Your task to perform on an android device: change notifications settings Image 0: 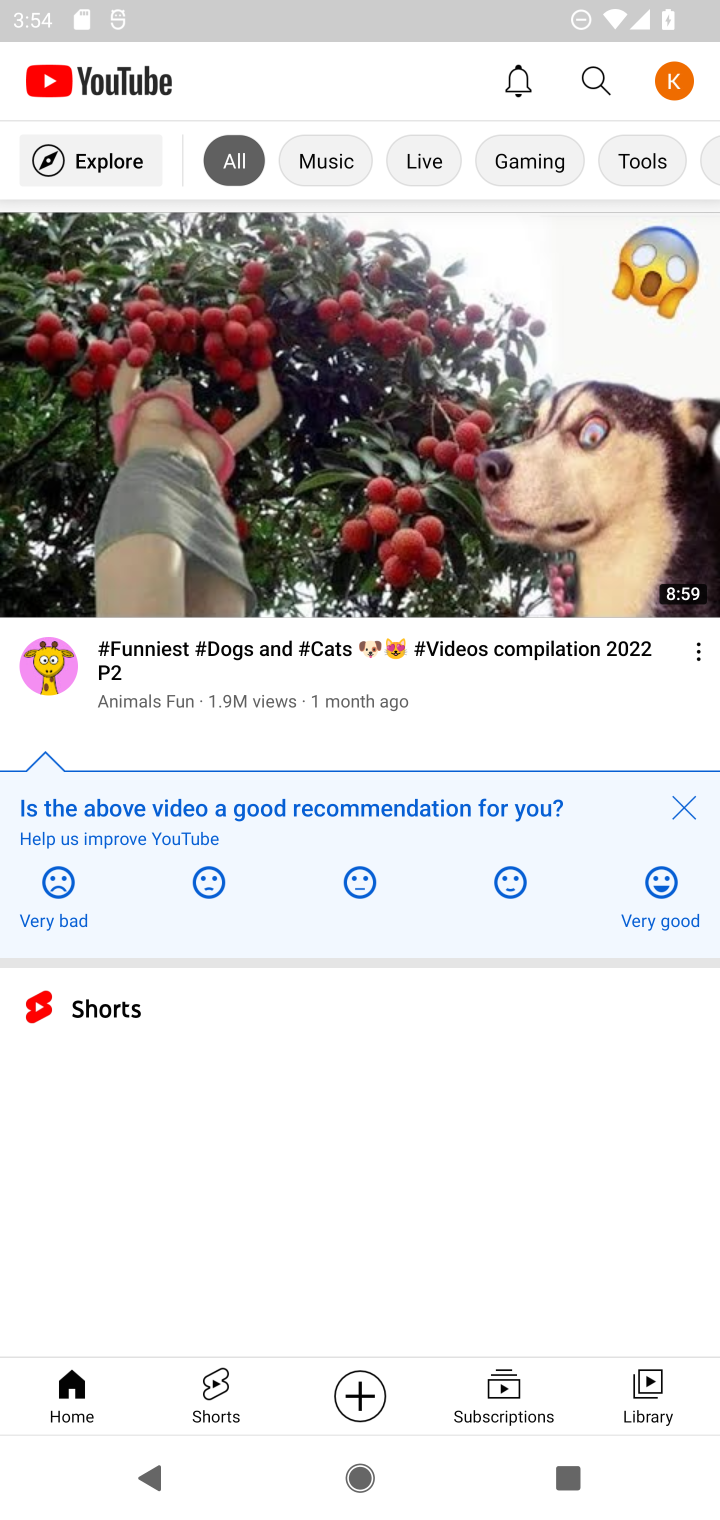
Step 0: press back button
Your task to perform on an android device: change notifications settings Image 1: 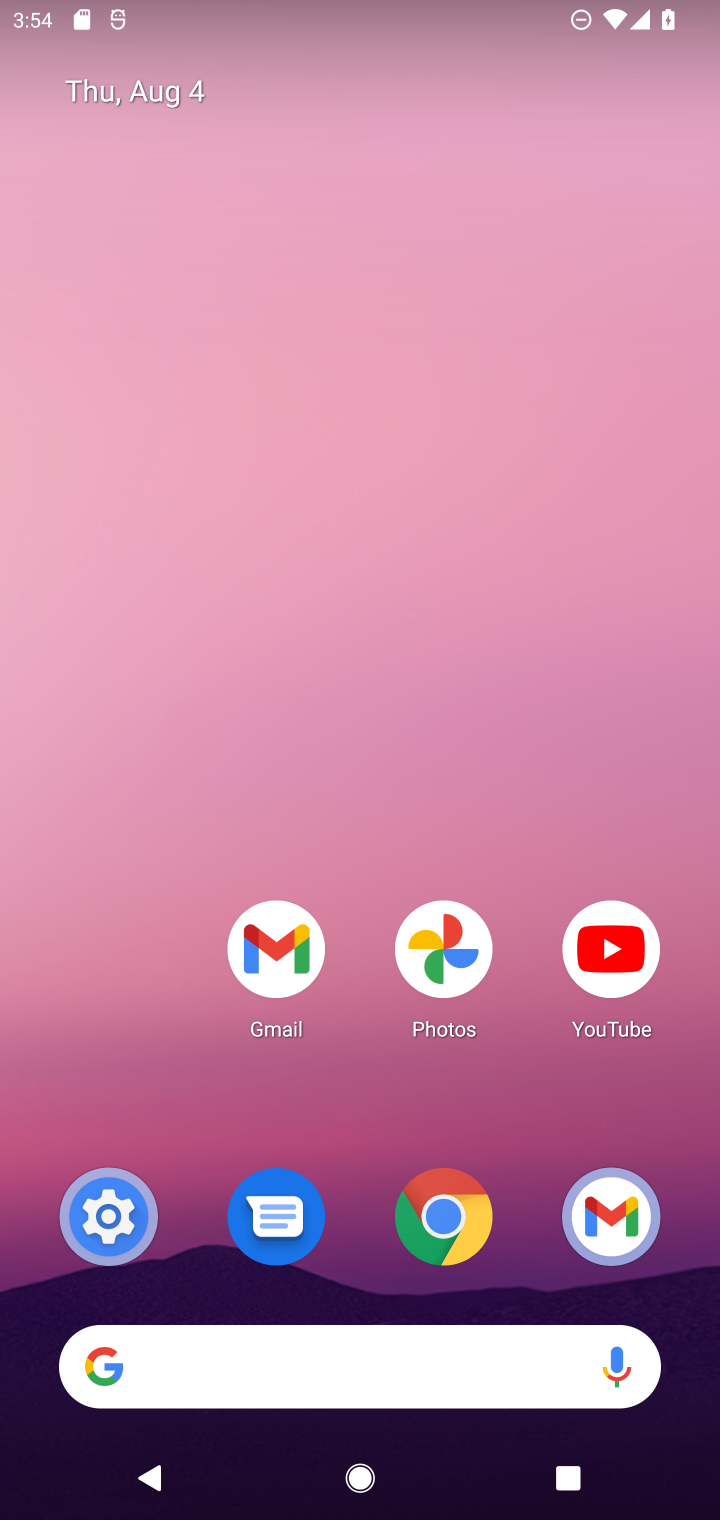
Step 1: drag from (119, 967) to (338, 6)
Your task to perform on an android device: change notifications settings Image 2: 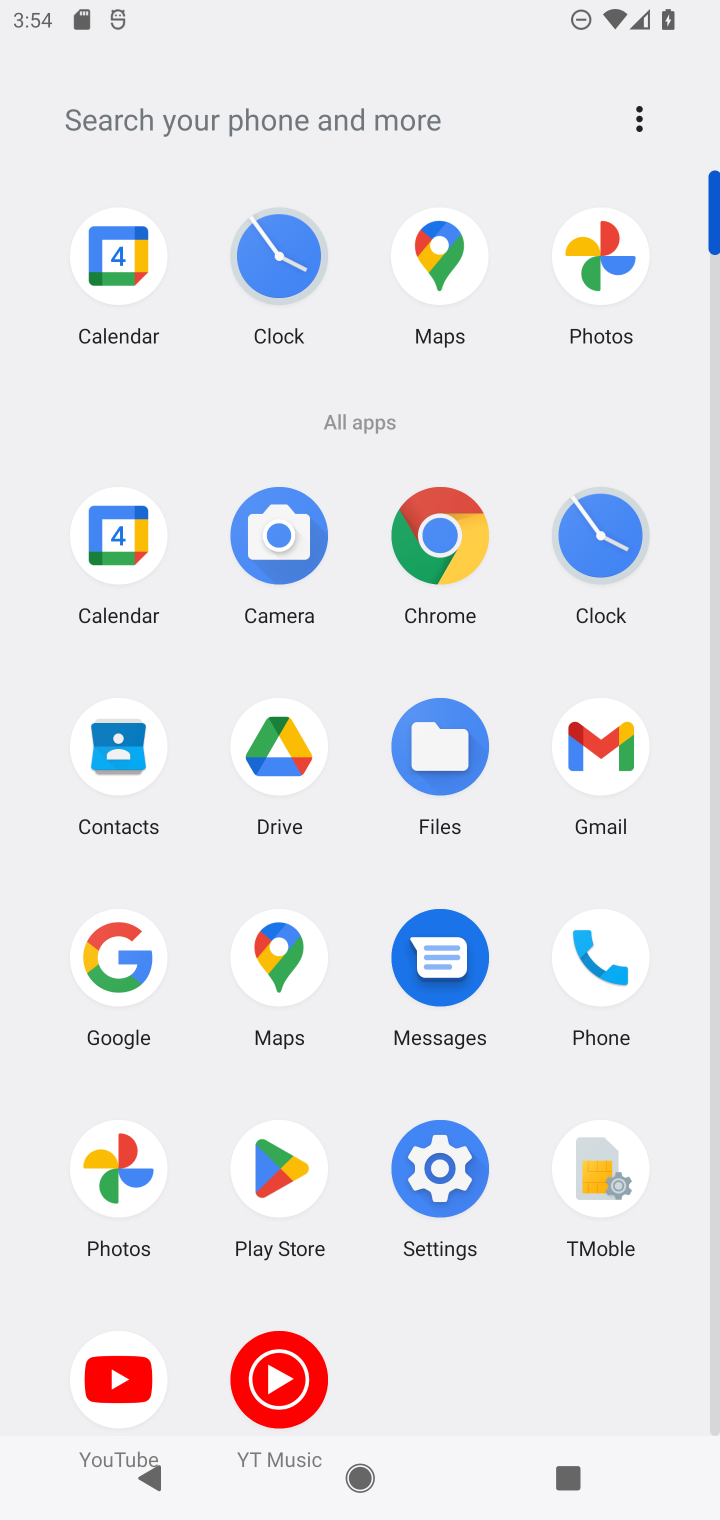
Step 2: click (421, 1174)
Your task to perform on an android device: change notifications settings Image 3: 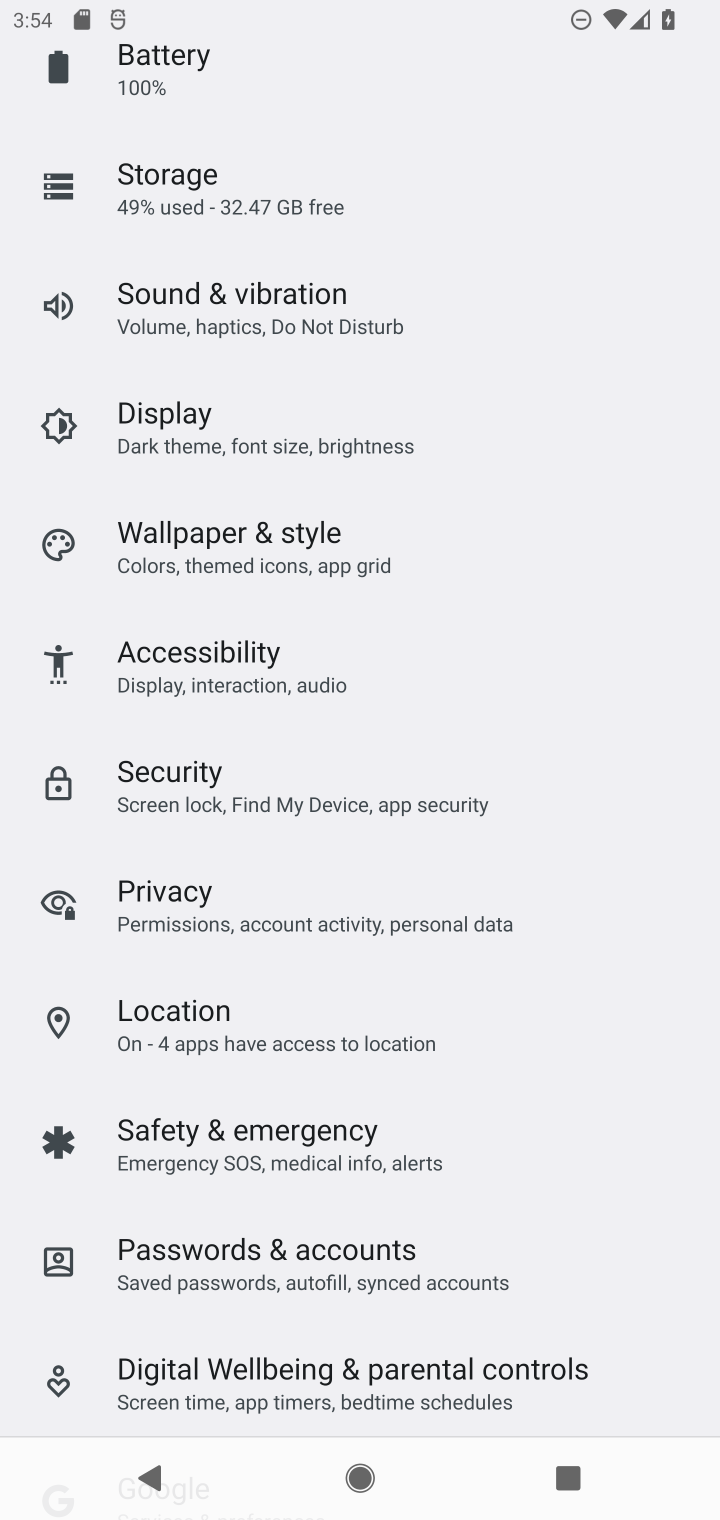
Step 3: drag from (371, 294) to (268, 1317)
Your task to perform on an android device: change notifications settings Image 4: 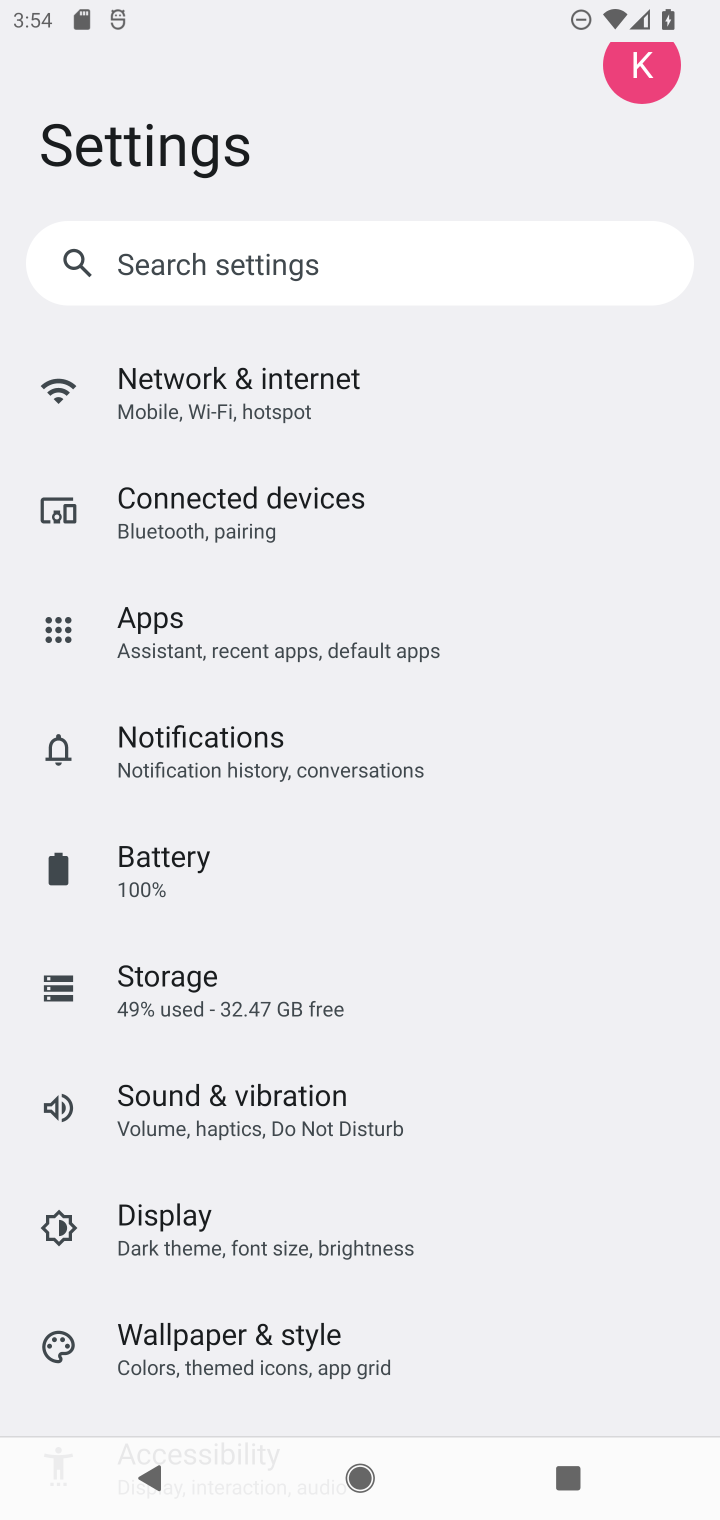
Step 4: click (296, 740)
Your task to perform on an android device: change notifications settings Image 5: 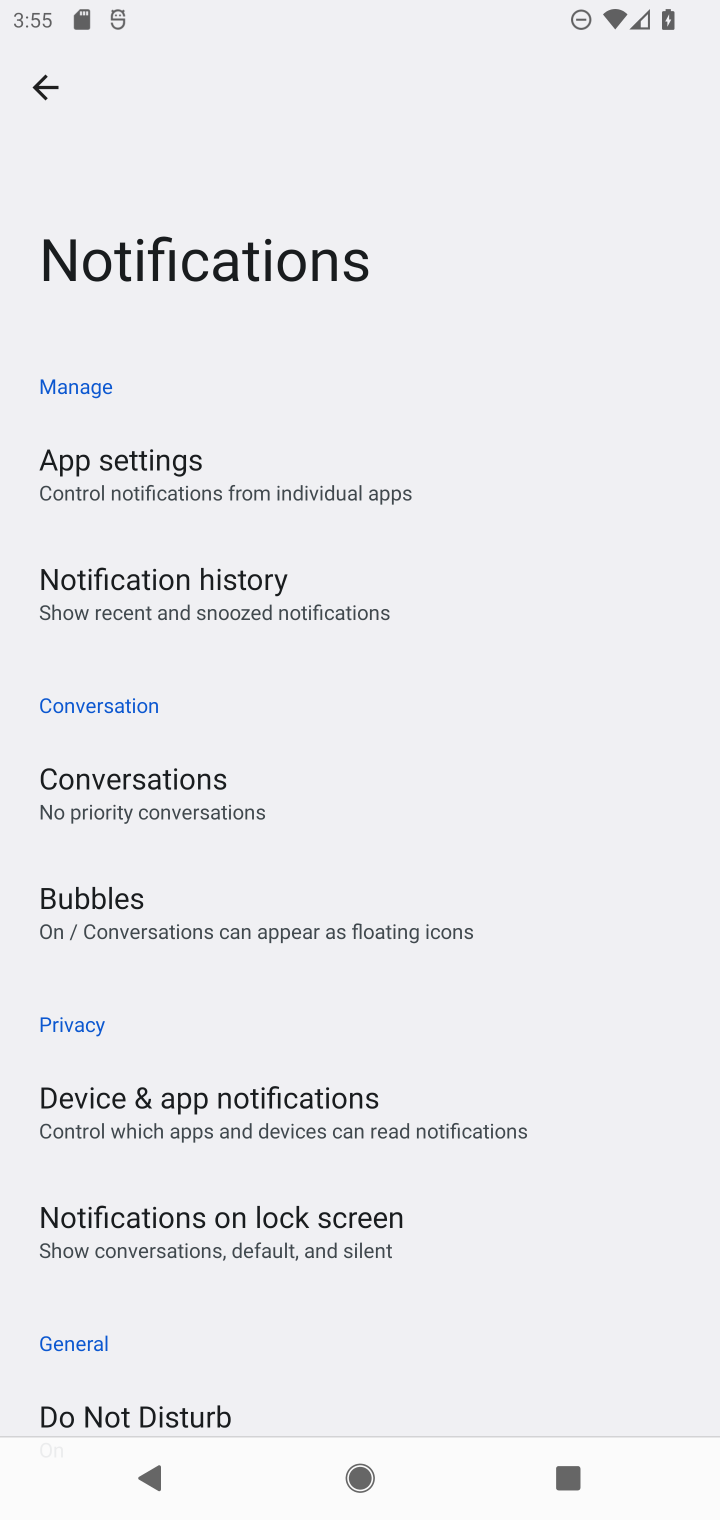
Step 5: task complete